Your task to perform on an android device: Set the phone to "Do not disturb". Image 0: 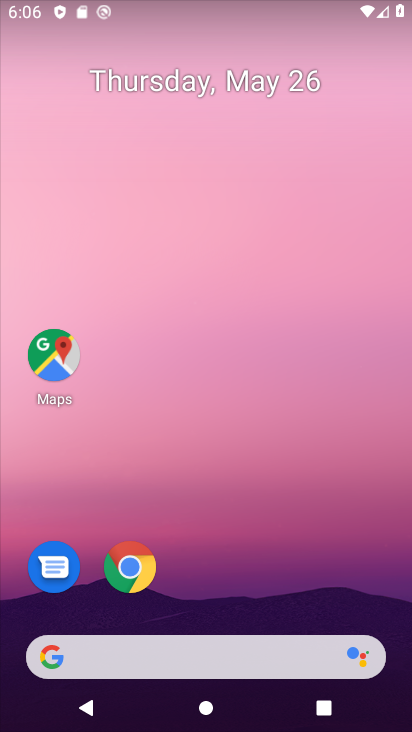
Step 0: drag from (174, 640) to (290, 194)
Your task to perform on an android device: Set the phone to "Do not disturb". Image 1: 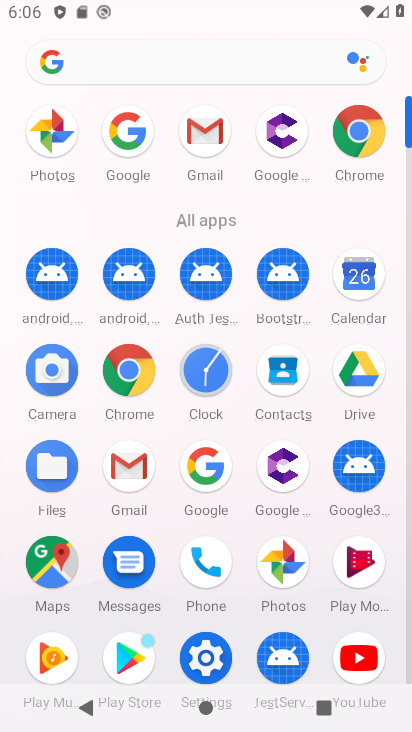
Step 1: drag from (190, 633) to (300, 152)
Your task to perform on an android device: Set the phone to "Do not disturb". Image 2: 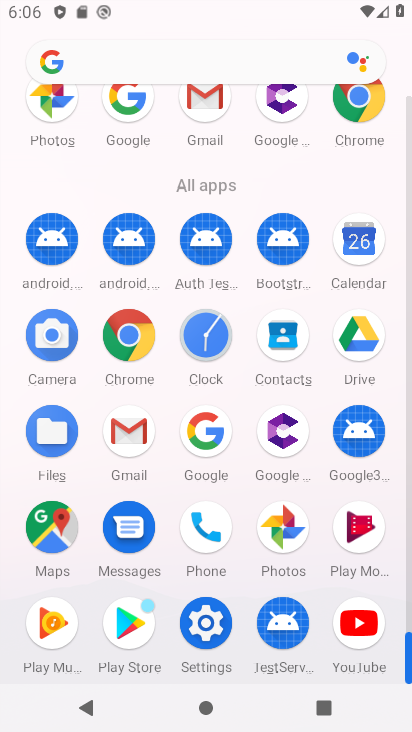
Step 2: click (202, 594)
Your task to perform on an android device: Set the phone to "Do not disturb". Image 3: 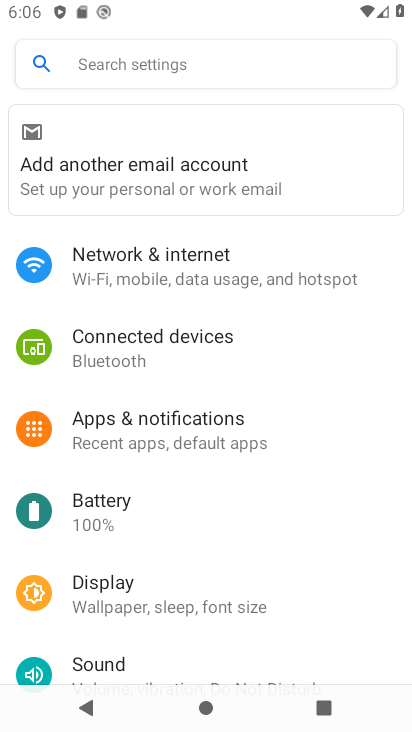
Step 3: drag from (196, 595) to (299, 269)
Your task to perform on an android device: Set the phone to "Do not disturb". Image 4: 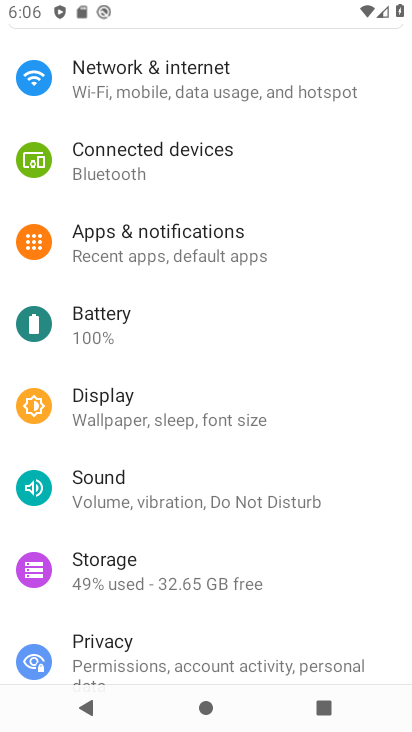
Step 4: click (251, 600)
Your task to perform on an android device: Set the phone to "Do not disturb". Image 5: 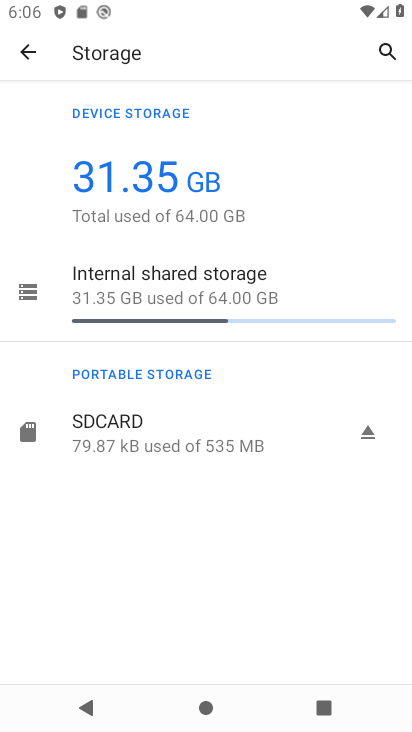
Step 5: click (18, 51)
Your task to perform on an android device: Set the phone to "Do not disturb". Image 6: 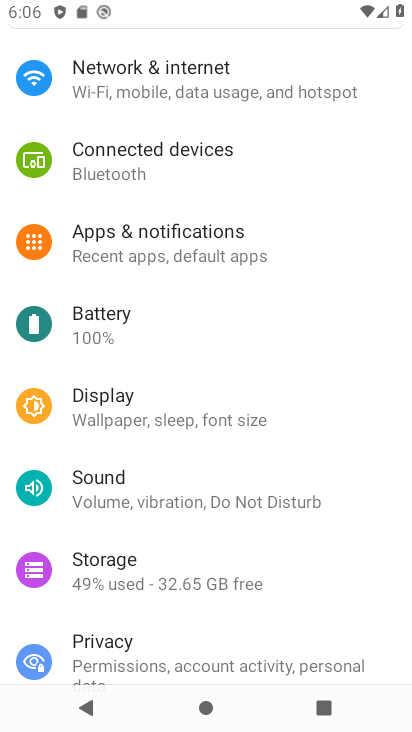
Step 6: click (155, 501)
Your task to perform on an android device: Set the phone to "Do not disturb". Image 7: 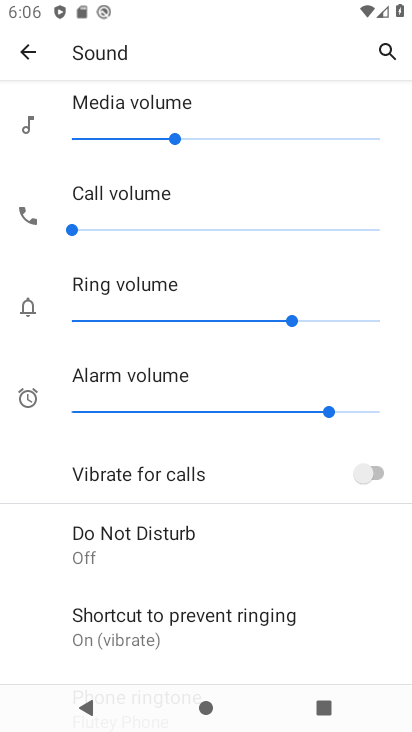
Step 7: click (167, 545)
Your task to perform on an android device: Set the phone to "Do not disturb". Image 8: 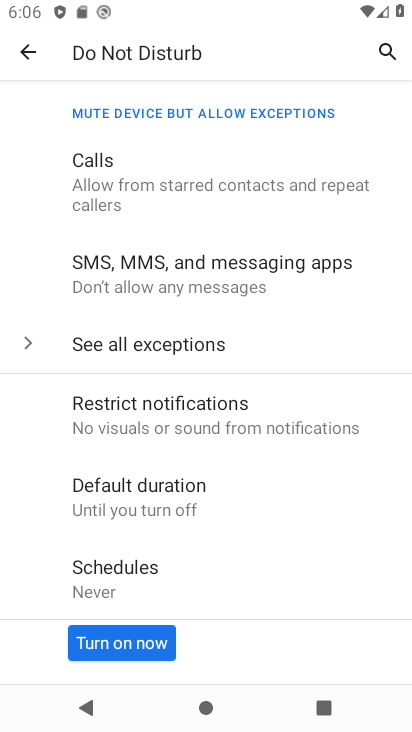
Step 8: click (133, 652)
Your task to perform on an android device: Set the phone to "Do not disturb". Image 9: 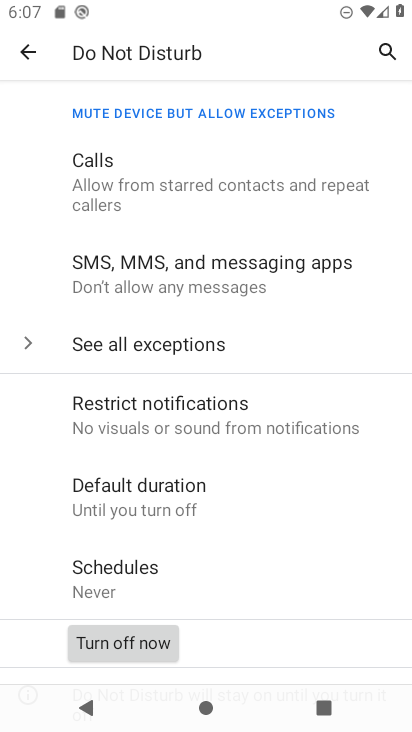
Step 9: task complete